Your task to perform on an android device: Search for sushi restaurants on Maps Image 0: 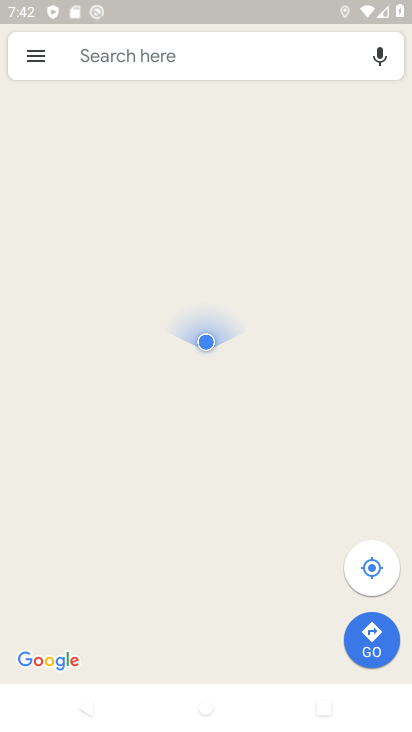
Step 0: press back button
Your task to perform on an android device: Search for sushi restaurants on Maps Image 1: 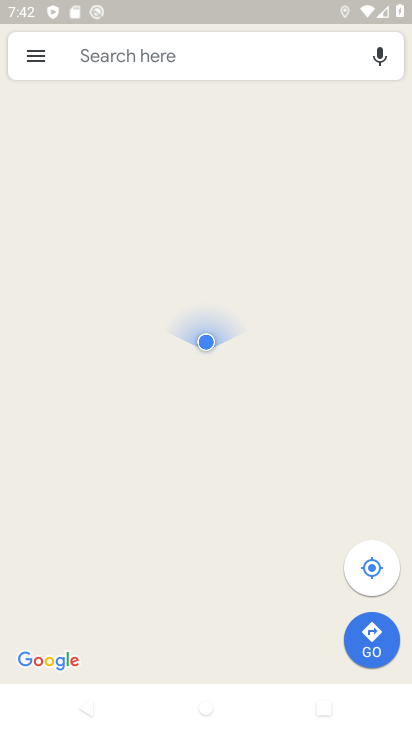
Step 1: press home button
Your task to perform on an android device: Search for sushi restaurants on Maps Image 2: 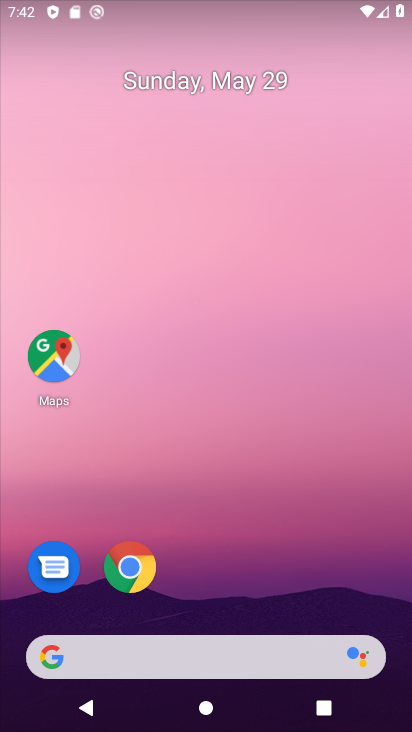
Step 2: press home button
Your task to perform on an android device: Search for sushi restaurants on Maps Image 3: 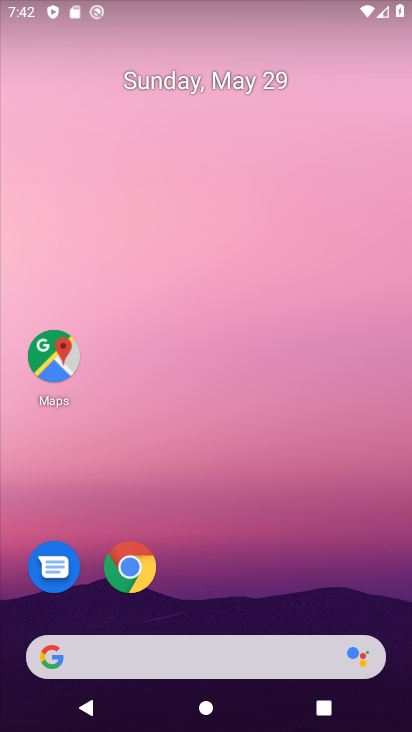
Step 3: press home button
Your task to perform on an android device: Search for sushi restaurants on Maps Image 4: 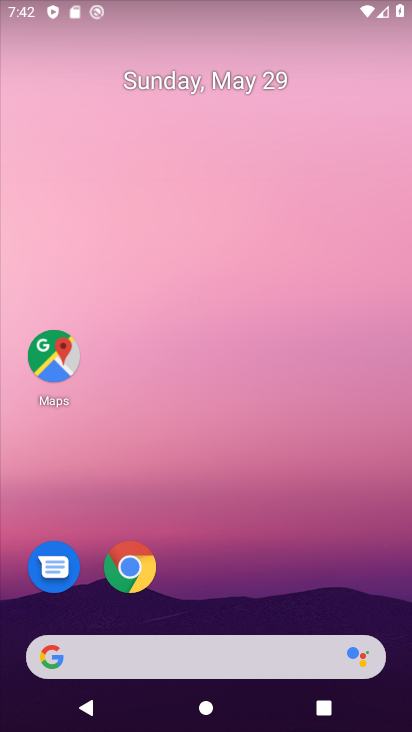
Step 4: drag from (223, 630) to (176, 13)
Your task to perform on an android device: Search for sushi restaurants on Maps Image 5: 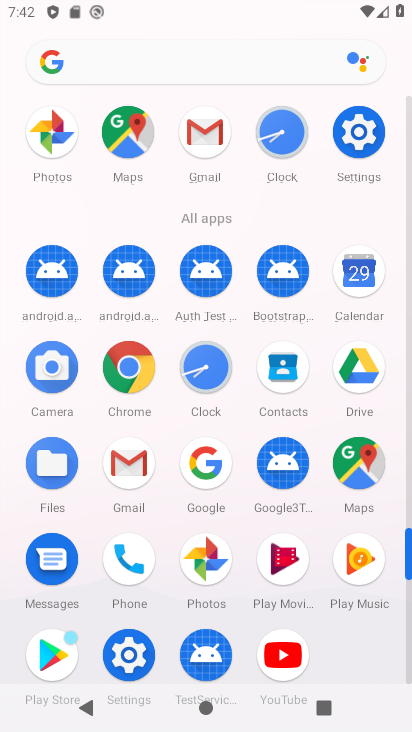
Step 5: drag from (105, 81) to (84, 14)
Your task to perform on an android device: Search for sushi restaurants on Maps Image 6: 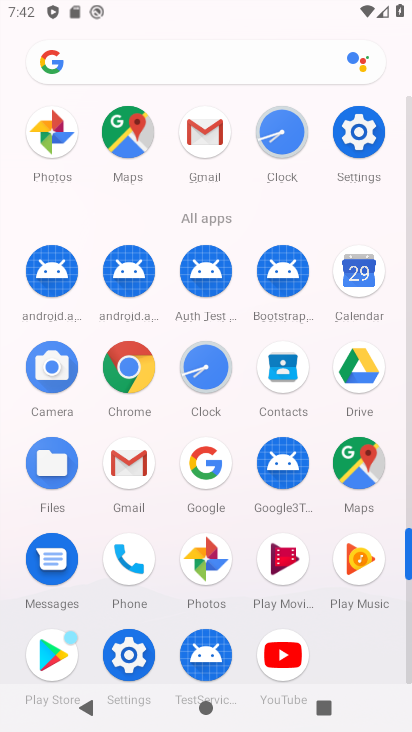
Step 6: drag from (210, 523) to (97, 67)
Your task to perform on an android device: Search for sushi restaurants on Maps Image 7: 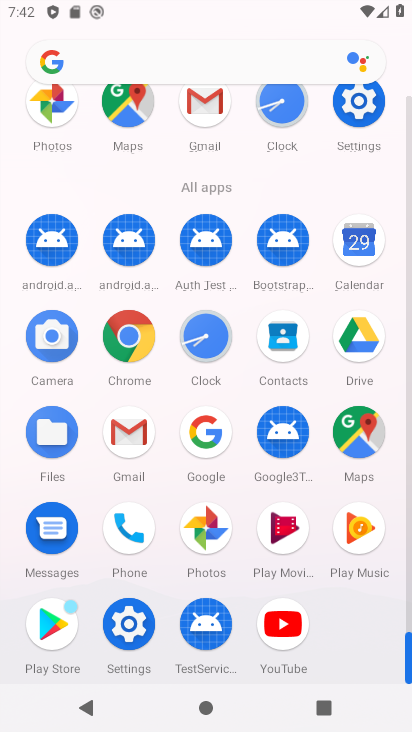
Step 7: click (345, 442)
Your task to perform on an android device: Search for sushi restaurants on Maps Image 8: 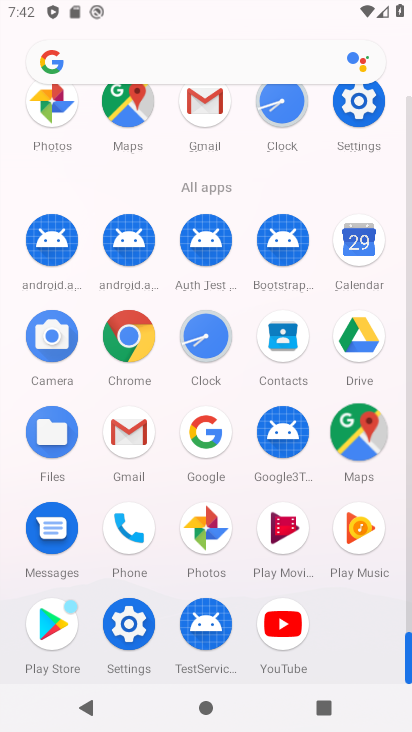
Step 8: click (347, 442)
Your task to perform on an android device: Search for sushi restaurants on Maps Image 9: 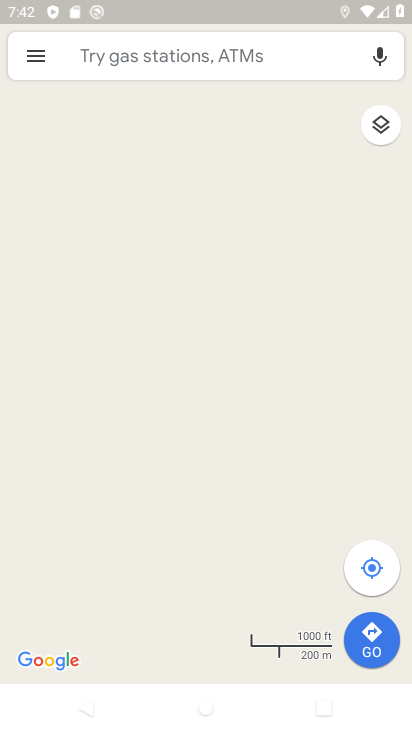
Step 9: click (364, 443)
Your task to perform on an android device: Search for sushi restaurants on Maps Image 10: 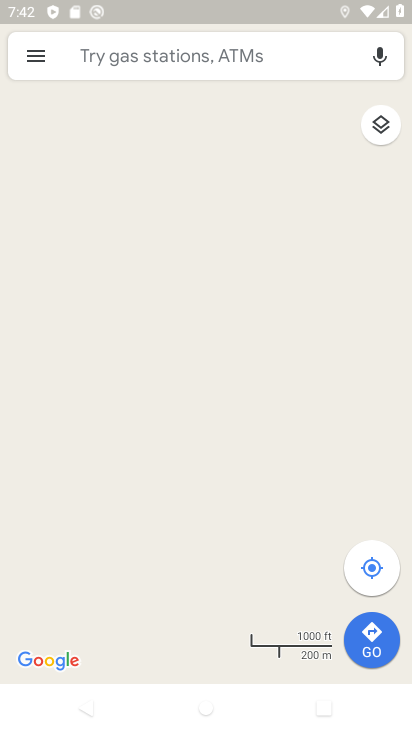
Step 10: click (364, 443)
Your task to perform on an android device: Search for sushi restaurants on Maps Image 11: 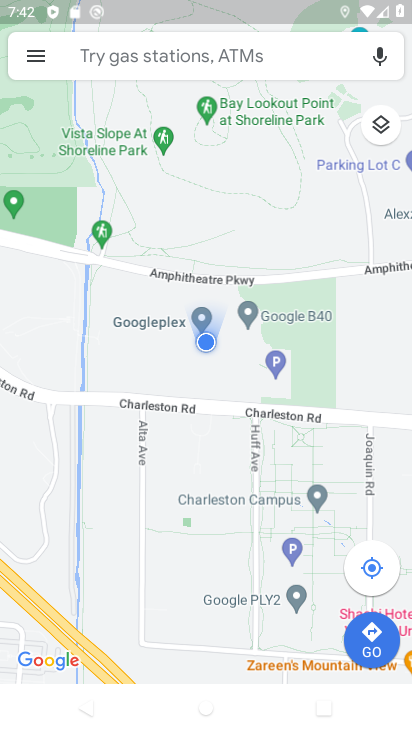
Step 11: click (84, 53)
Your task to perform on an android device: Search for sushi restaurants on Maps Image 12: 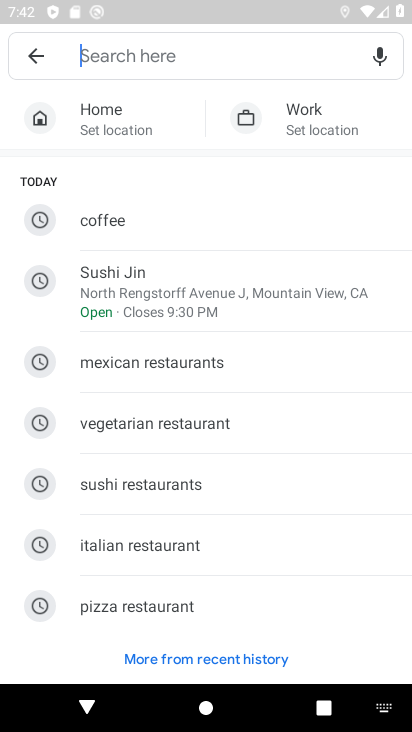
Step 12: click (84, 54)
Your task to perform on an android device: Search for sushi restaurants on Maps Image 13: 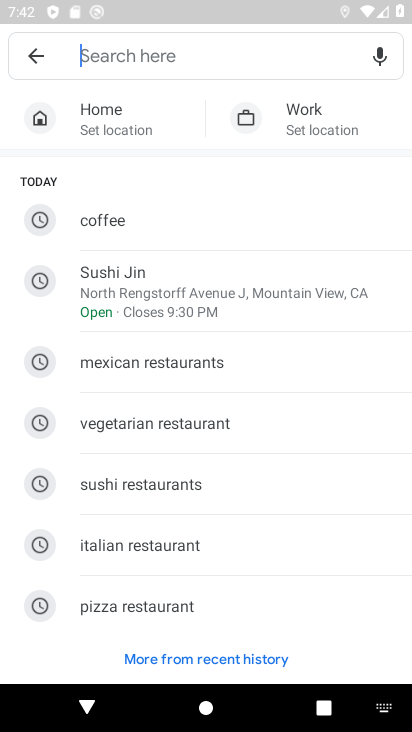
Step 13: click (75, 40)
Your task to perform on an android device: Search for sushi restaurants on Maps Image 14: 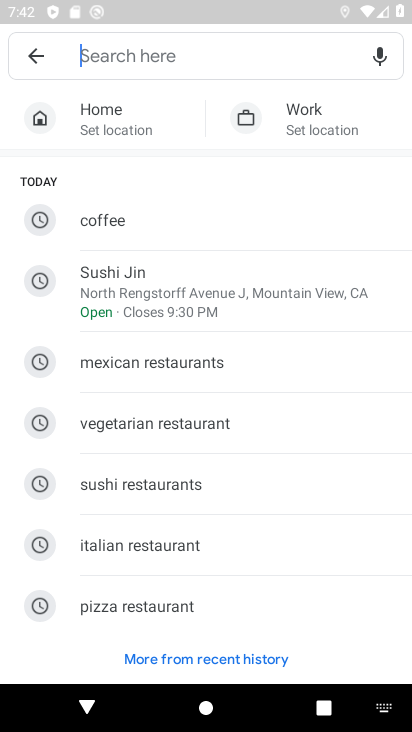
Step 14: click (129, 477)
Your task to perform on an android device: Search for sushi restaurants on Maps Image 15: 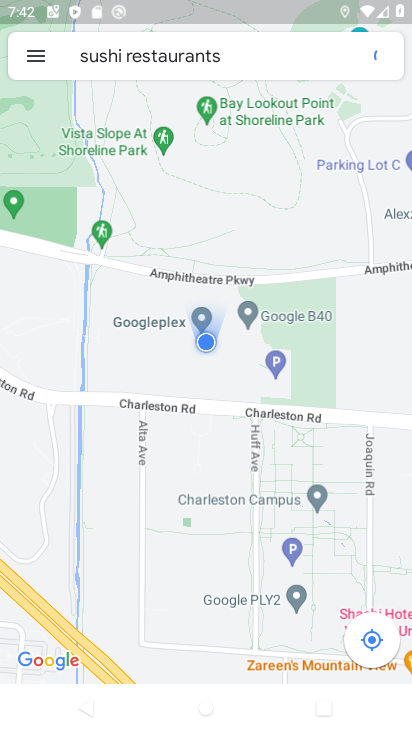
Step 15: click (159, 513)
Your task to perform on an android device: Search for sushi restaurants on Maps Image 16: 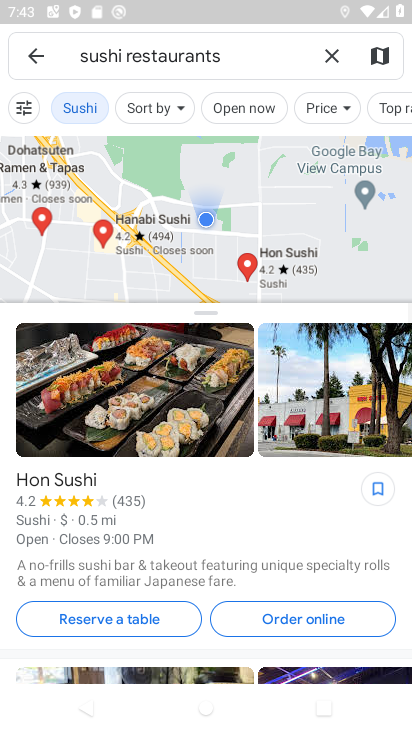
Step 16: click (164, 487)
Your task to perform on an android device: Search for sushi restaurants on Maps Image 17: 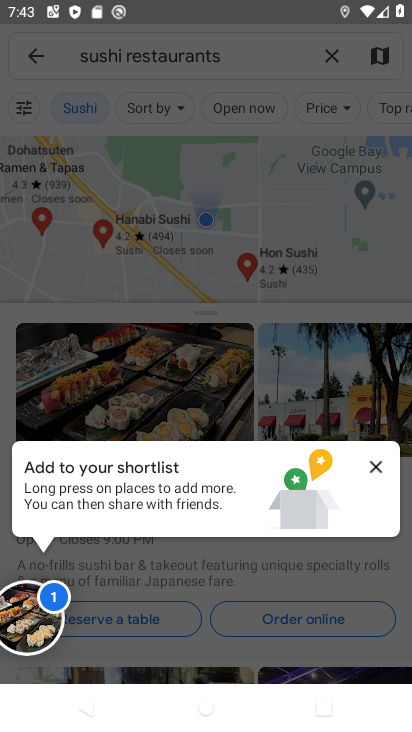
Step 17: drag from (170, 495) to (84, 472)
Your task to perform on an android device: Search for sushi restaurants on Maps Image 18: 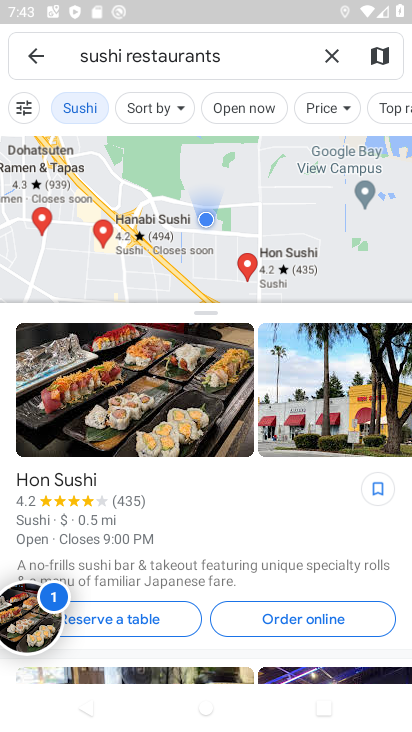
Step 18: click (84, 484)
Your task to perform on an android device: Search for sushi restaurants on Maps Image 19: 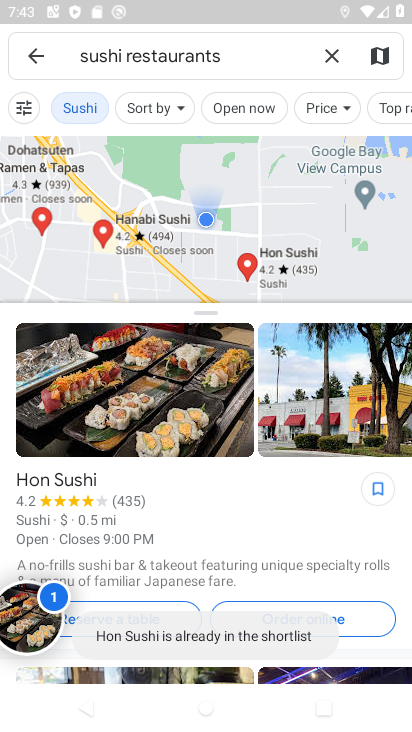
Step 19: click (109, 484)
Your task to perform on an android device: Search for sushi restaurants on Maps Image 20: 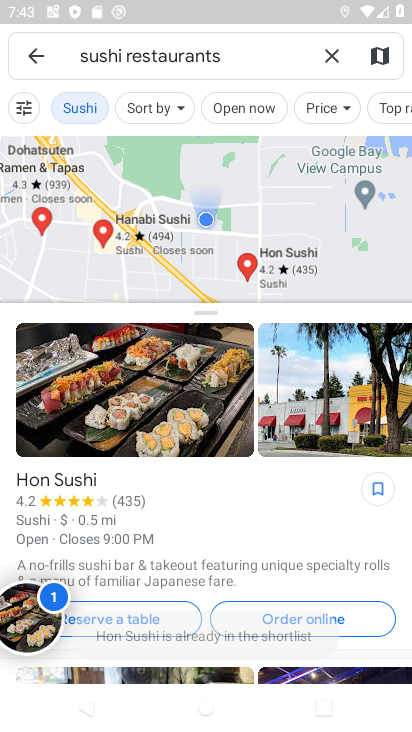
Step 20: click (126, 483)
Your task to perform on an android device: Search for sushi restaurants on Maps Image 21: 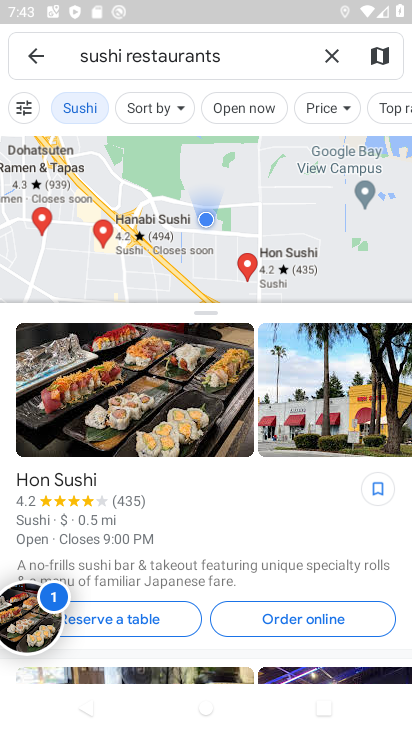
Step 21: task complete